Your task to perform on an android device: Go to Google maps Image 0: 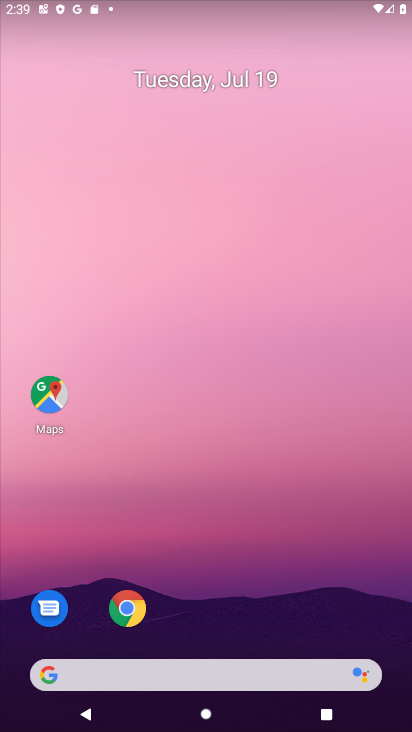
Step 0: drag from (278, 536) to (196, 5)
Your task to perform on an android device: Go to Google maps Image 1: 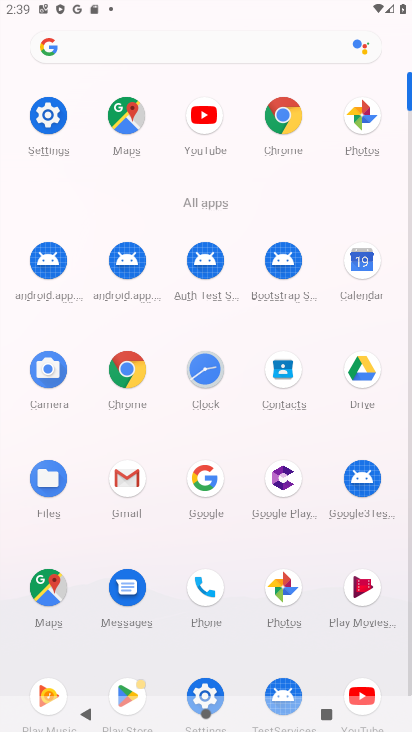
Step 1: click (124, 109)
Your task to perform on an android device: Go to Google maps Image 2: 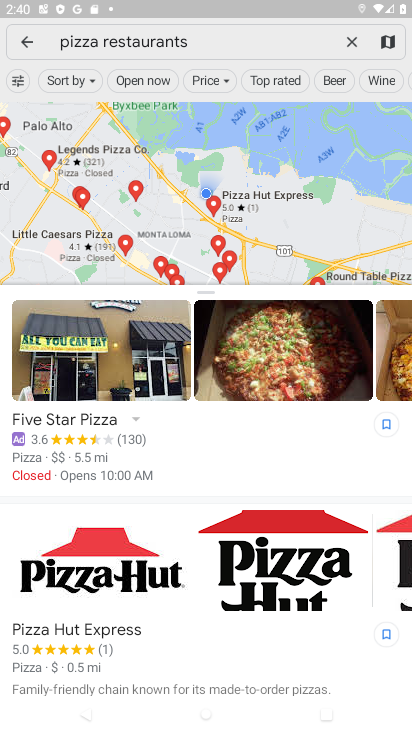
Step 2: task complete